Your task to perform on an android device: change the clock display to analog Image 0: 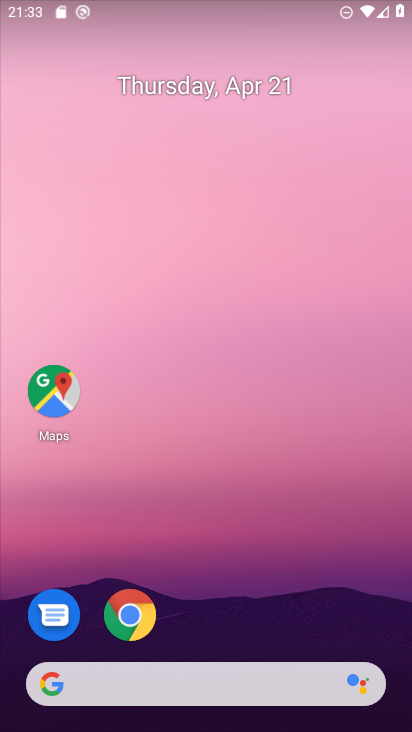
Step 0: click (273, 99)
Your task to perform on an android device: change the clock display to analog Image 1: 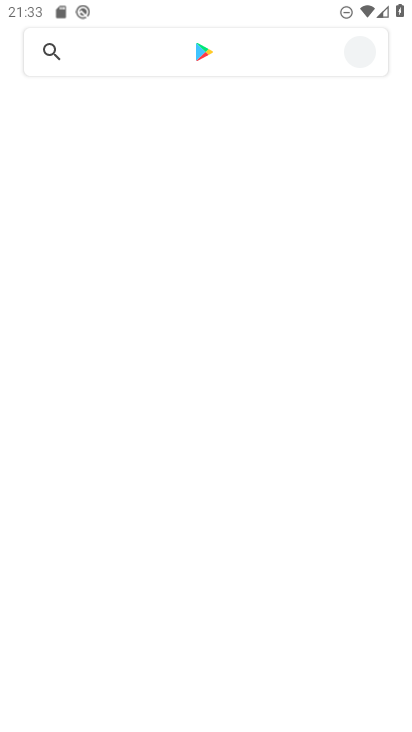
Step 1: drag from (199, 640) to (207, 307)
Your task to perform on an android device: change the clock display to analog Image 2: 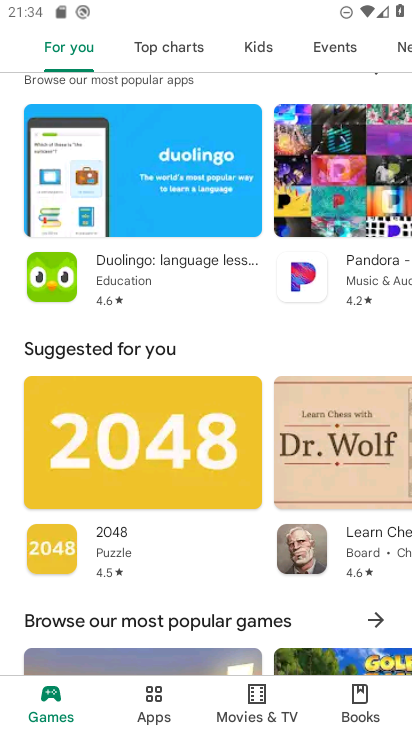
Step 2: drag from (191, 594) to (229, 171)
Your task to perform on an android device: change the clock display to analog Image 3: 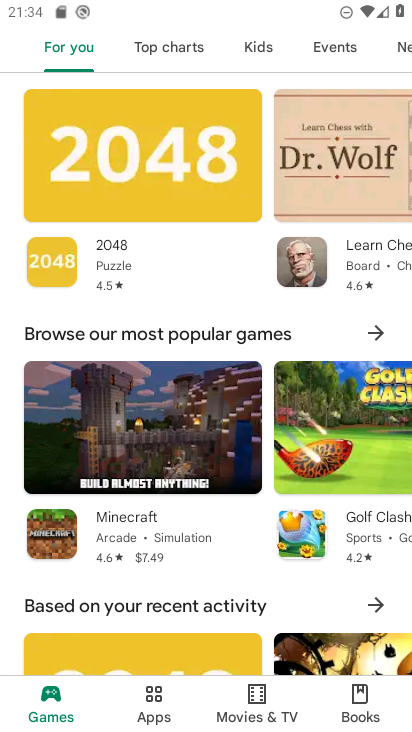
Step 3: press home button
Your task to perform on an android device: change the clock display to analog Image 4: 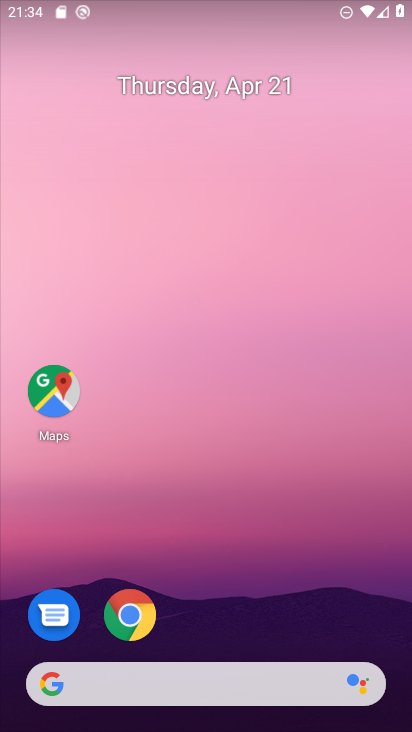
Step 4: drag from (195, 636) to (247, 40)
Your task to perform on an android device: change the clock display to analog Image 5: 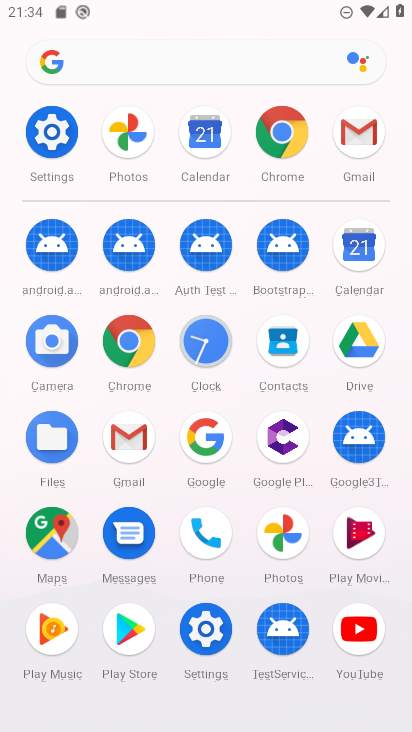
Step 5: click (210, 340)
Your task to perform on an android device: change the clock display to analog Image 6: 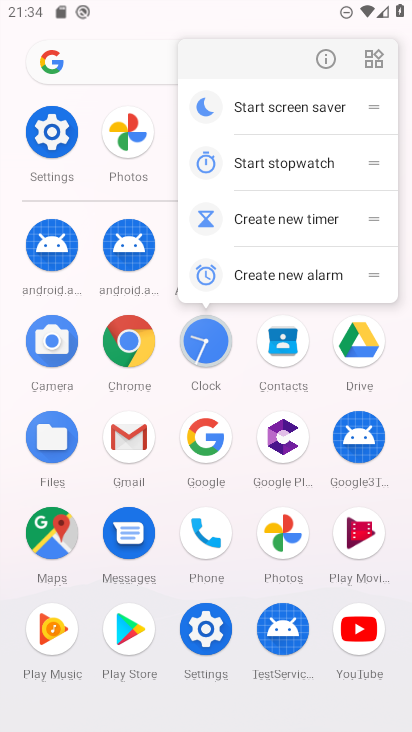
Step 6: click (326, 63)
Your task to perform on an android device: change the clock display to analog Image 7: 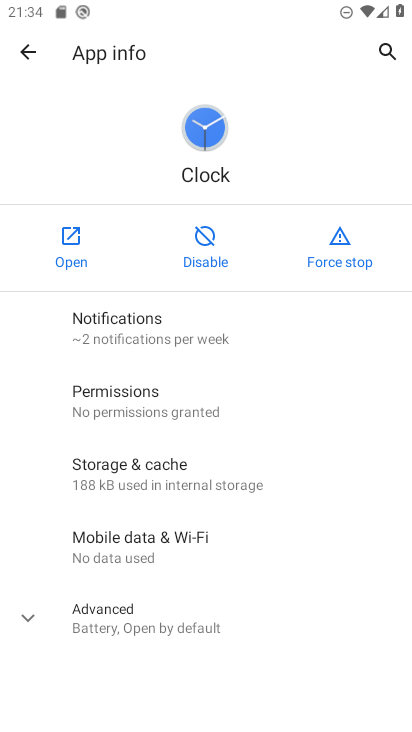
Step 7: click (57, 228)
Your task to perform on an android device: change the clock display to analog Image 8: 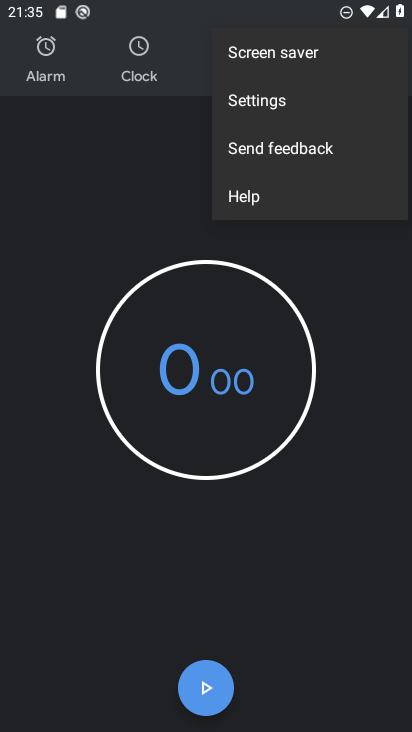
Step 8: click (284, 109)
Your task to perform on an android device: change the clock display to analog Image 9: 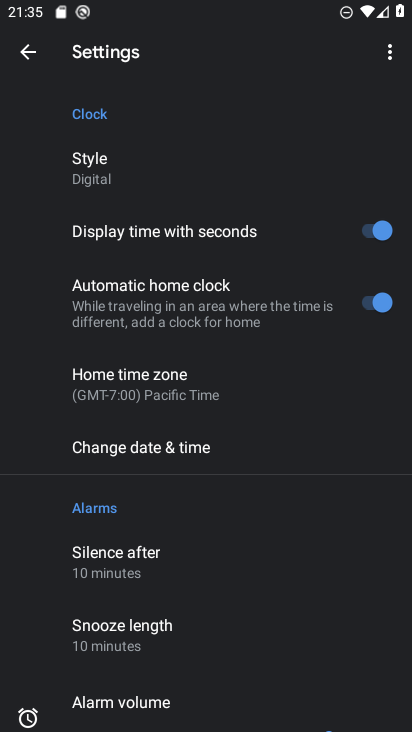
Step 9: click (168, 169)
Your task to perform on an android device: change the clock display to analog Image 10: 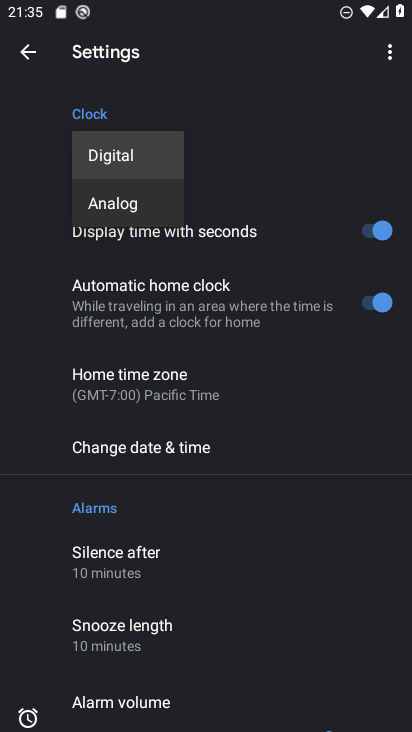
Step 10: click (131, 208)
Your task to perform on an android device: change the clock display to analog Image 11: 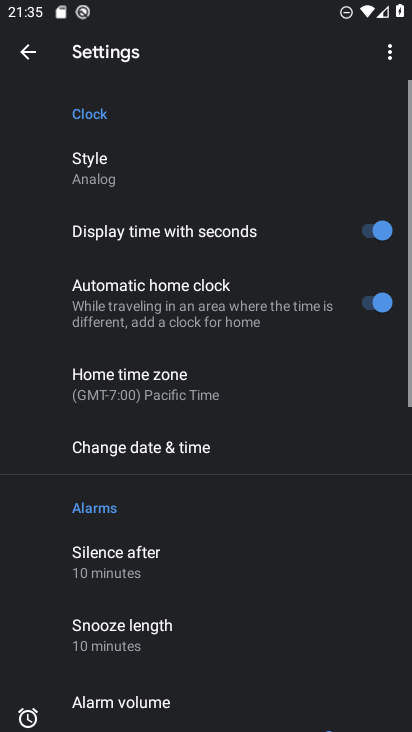
Step 11: task complete